Your task to perform on an android device: turn off javascript in the chrome app Image 0: 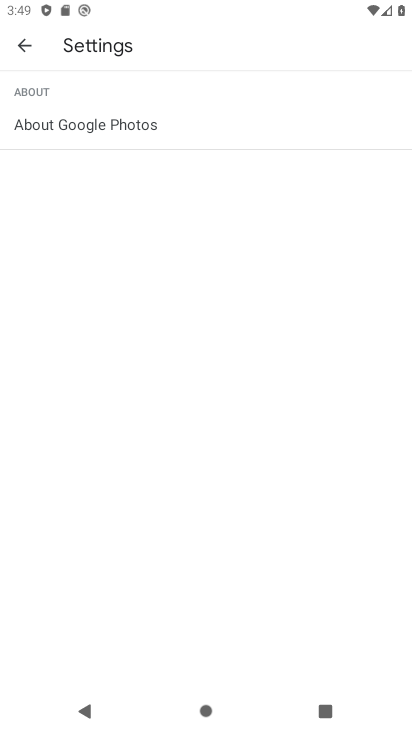
Step 0: press home button
Your task to perform on an android device: turn off javascript in the chrome app Image 1: 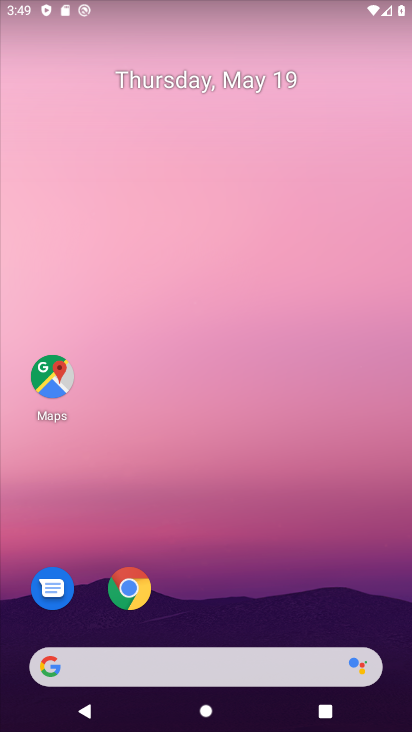
Step 1: click (141, 597)
Your task to perform on an android device: turn off javascript in the chrome app Image 2: 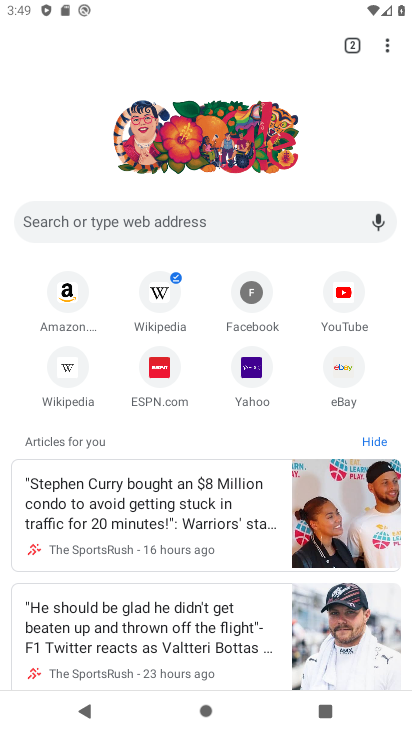
Step 2: click (385, 42)
Your task to perform on an android device: turn off javascript in the chrome app Image 3: 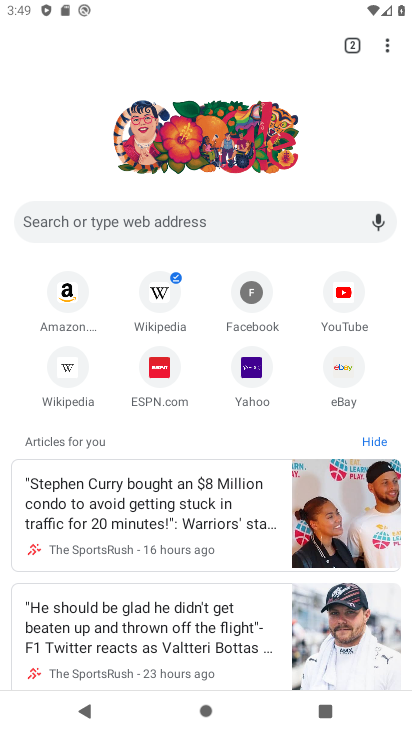
Step 3: click (392, 49)
Your task to perform on an android device: turn off javascript in the chrome app Image 4: 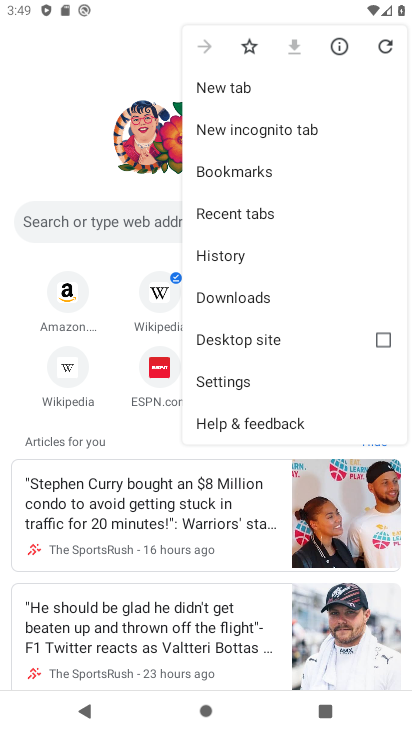
Step 4: click (233, 386)
Your task to perform on an android device: turn off javascript in the chrome app Image 5: 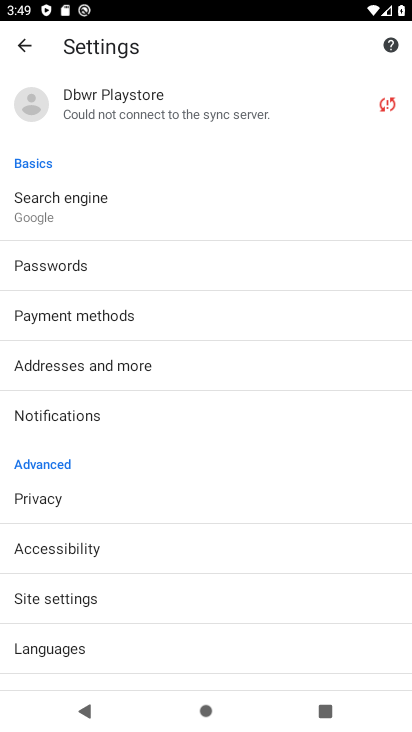
Step 5: click (120, 601)
Your task to perform on an android device: turn off javascript in the chrome app Image 6: 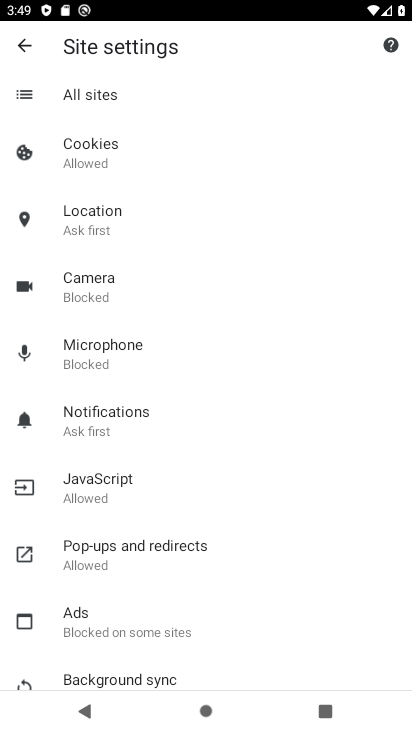
Step 6: click (123, 493)
Your task to perform on an android device: turn off javascript in the chrome app Image 7: 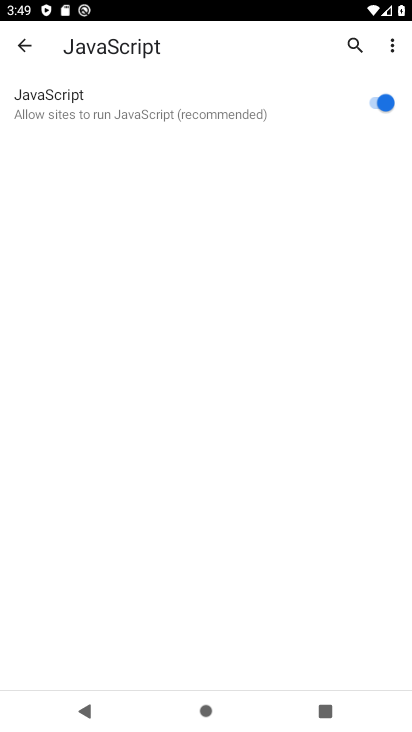
Step 7: click (337, 115)
Your task to perform on an android device: turn off javascript in the chrome app Image 8: 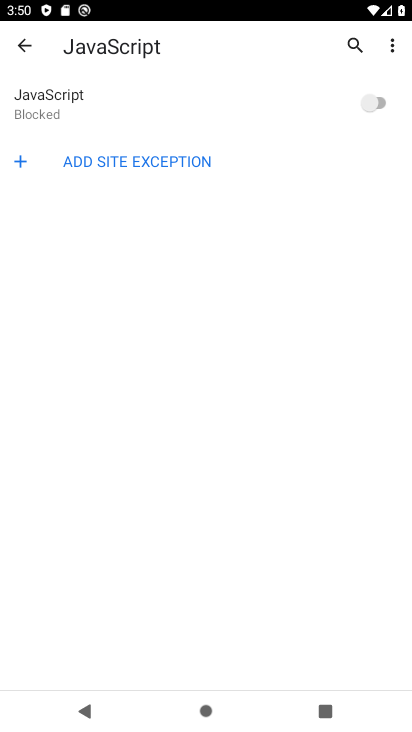
Step 8: task complete